Your task to perform on an android device: Go to privacy settings Image 0: 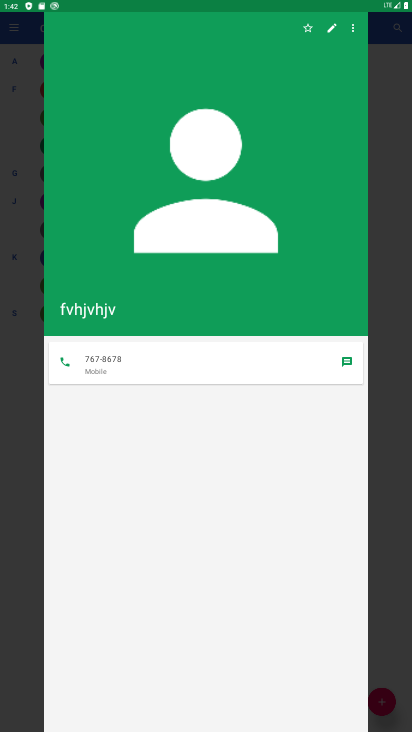
Step 0: press home button
Your task to perform on an android device: Go to privacy settings Image 1: 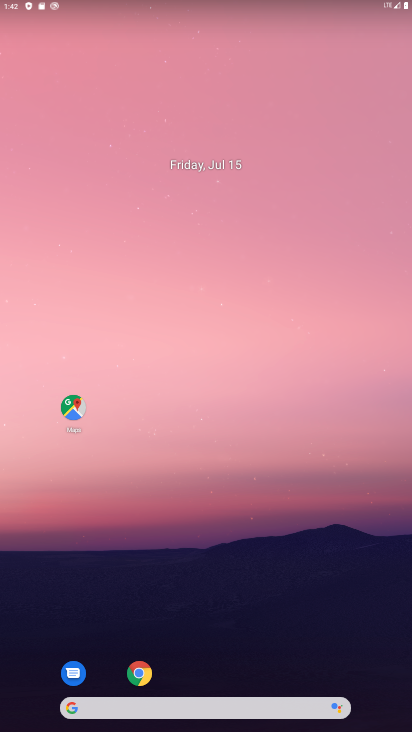
Step 1: drag from (237, 518) to (245, 12)
Your task to perform on an android device: Go to privacy settings Image 2: 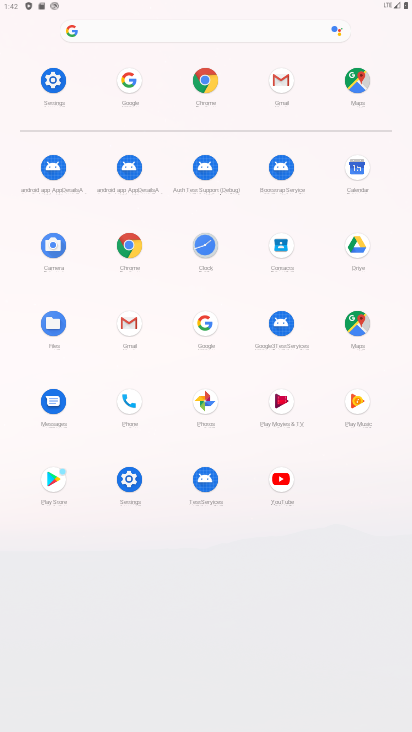
Step 2: click (49, 73)
Your task to perform on an android device: Go to privacy settings Image 3: 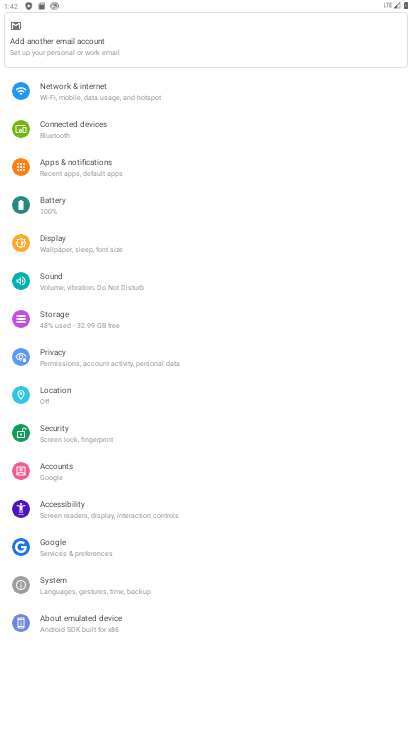
Step 3: click (104, 361)
Your task to perform on an android device: Go to privacy settings Image 4: 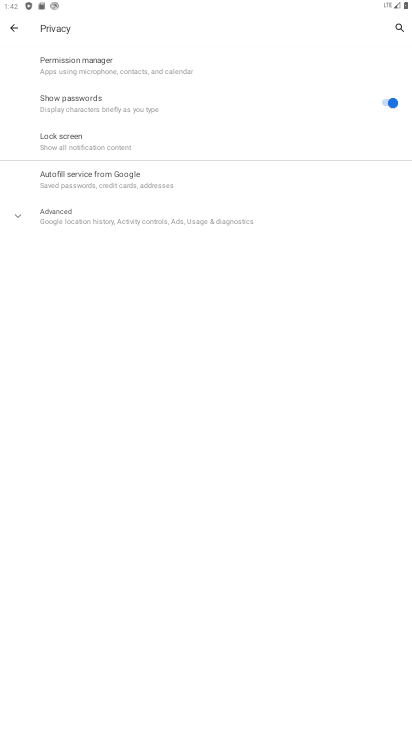
Step 4: task complete